Your task to perform on an android device: turn on priority inbox in the gmail app Image 0: 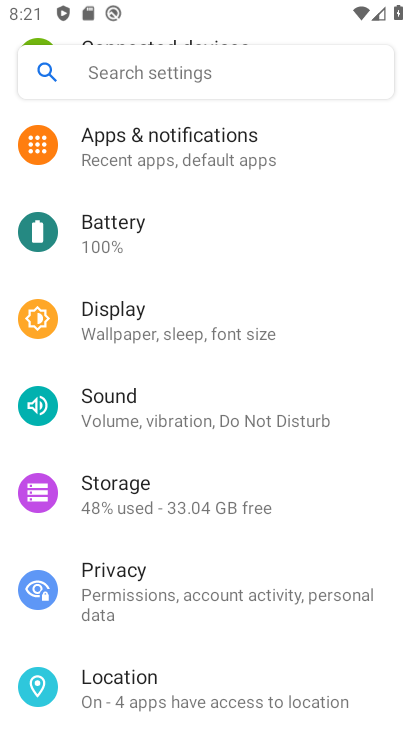
Step 0: press home button
Your task to perform on an android device: turn on priority inbox in the gmail app Image 1: 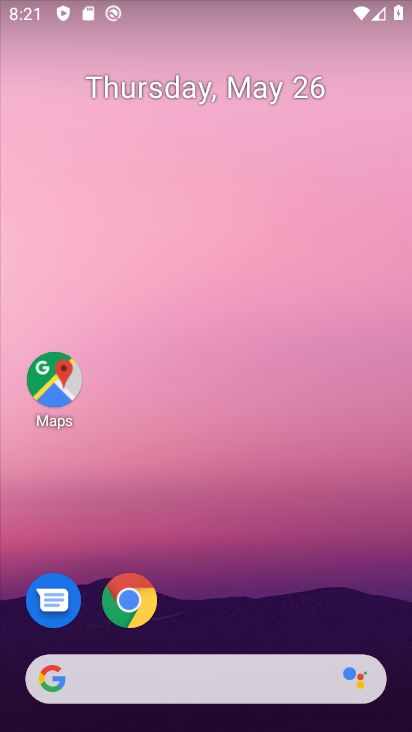
Step 1: drag from (291, 611) to (291, 50)
Your task to perform on an android device: turn on priority inbox in the gmail app Image 2: 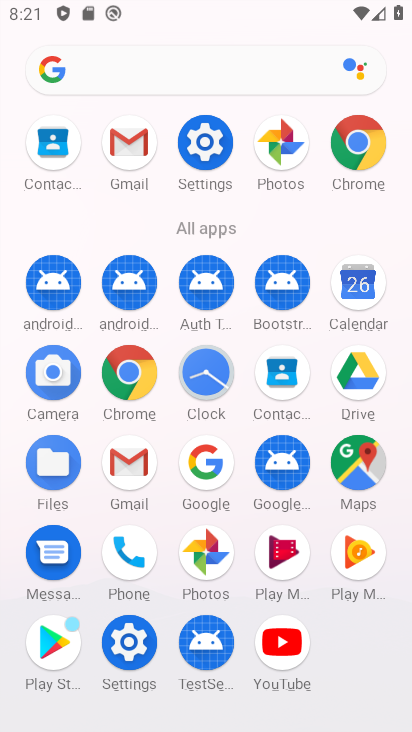
Step 2: click (125, 142)
Your task to perform on an android device: turn on priority inbox in the gmail app Image 3: 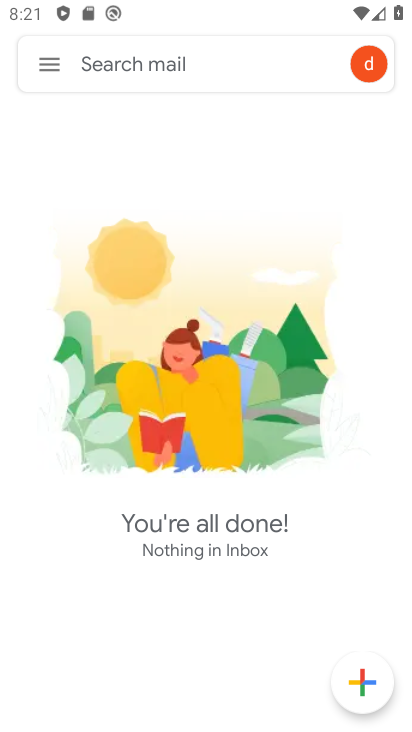
Step 3: click (60, 73)
Your task to perform on an android device: turn on priority inbox in the gmail app Image 4: 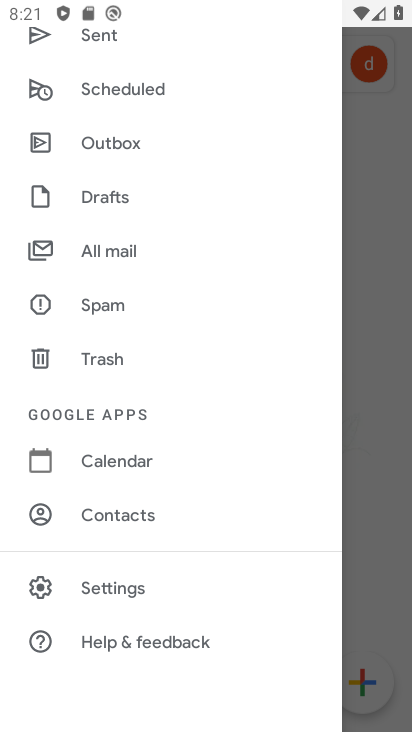
Step 4: click (130, 603)
Your task to perform on an android device: turn on priority inbox in the gmail app Image 5: 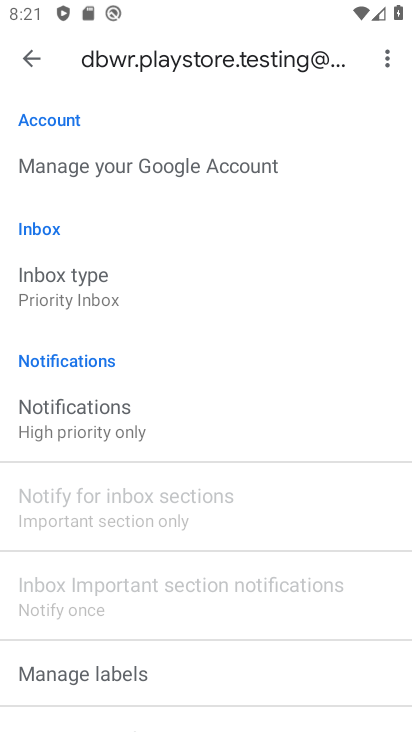
Step 5: click (155, 285)
Your task to perform on an android device: turn on priority inbox in the gmail app Image 6: 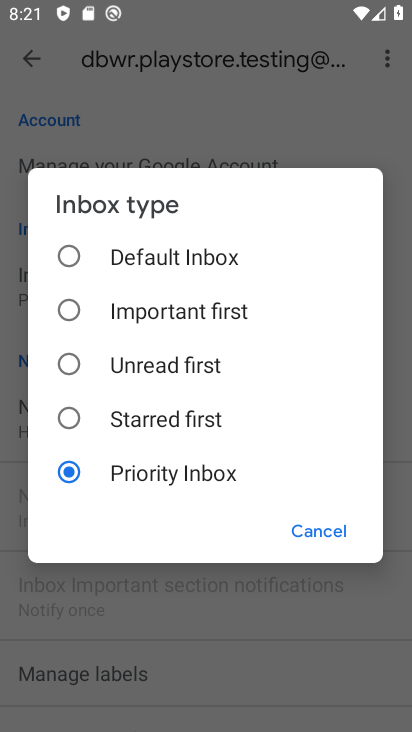
Step 6: task complete